Your task to perform on an android device: turn on improve location accuracy Image 0: 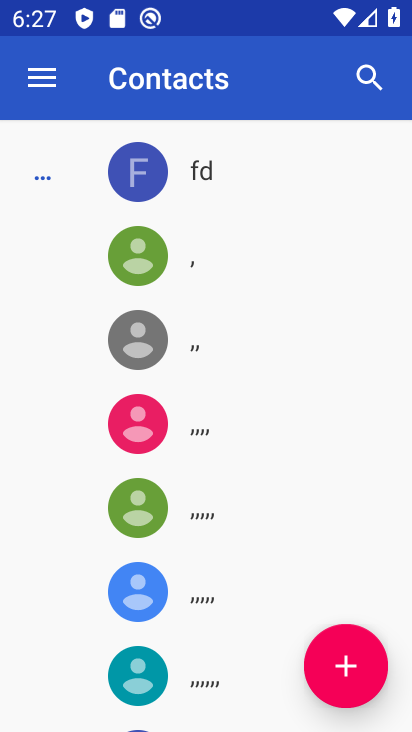
Step 0: press home button
Your task to perform on an android device: turn on improve location accuracy Image 1: 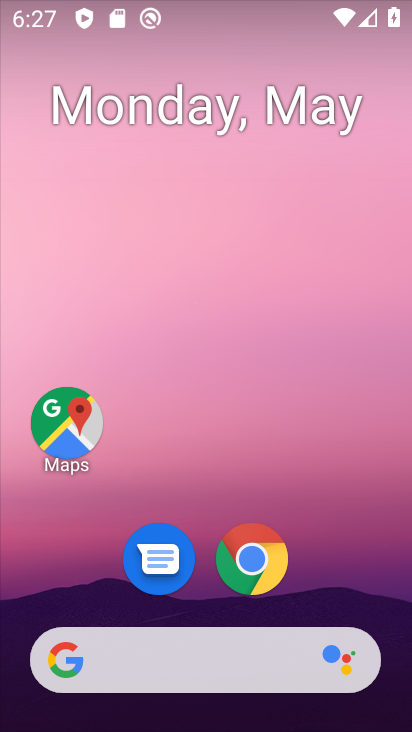
Step 1: drag from (393, 653) to (328, 131)
Your task to perform on an android device: turn on improve location accuracy Image 2: 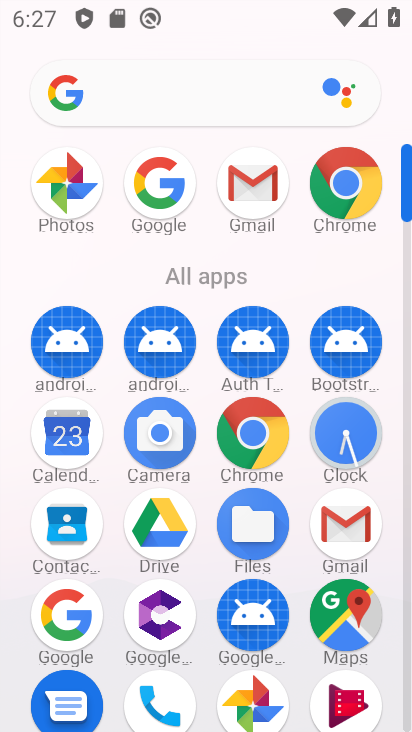
Step 2: drag from (205, 685) to (208, 144)
Your task to perform on an android device: turn on improve location accuracy Image 3: 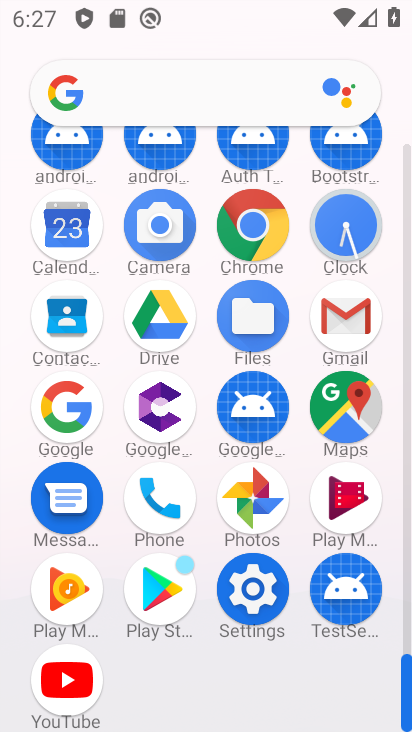
Step 3: click (258, 573)
Your task to perform on an android device: turn on improve location accuracy Image 4: 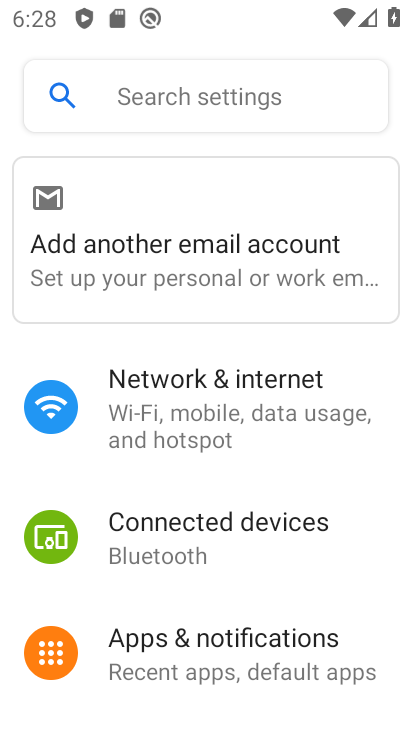
Step 4: click (292, 639)
Your task to perform on an android device: turn on improve location accuracy Image 5: 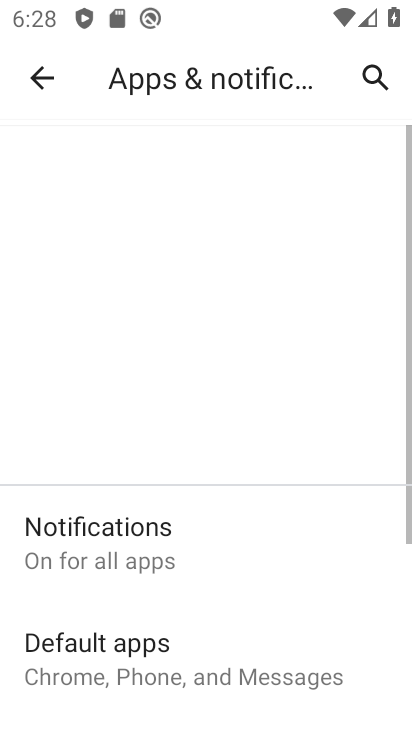
Step 5: press back button
Your task to perform on an android device: turn on improve location accuracy Image 6: 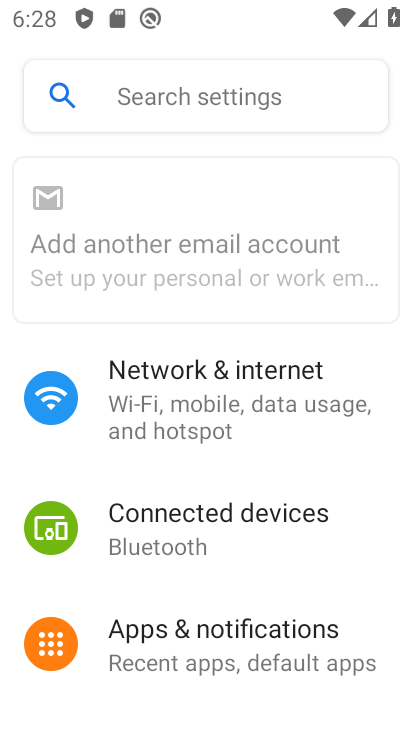
Step 6: drag from (256, 631) to (249, 100)
Your task to perform on an android device: turn on improve location accuracy Image 7: 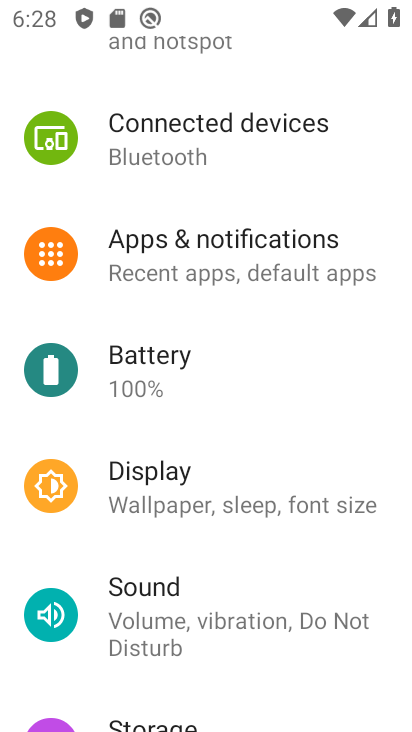
Step 7: drag from (190, 664) to (202, 222)
Your task to perform on an android device: turn on improve location accuracy Image 8: 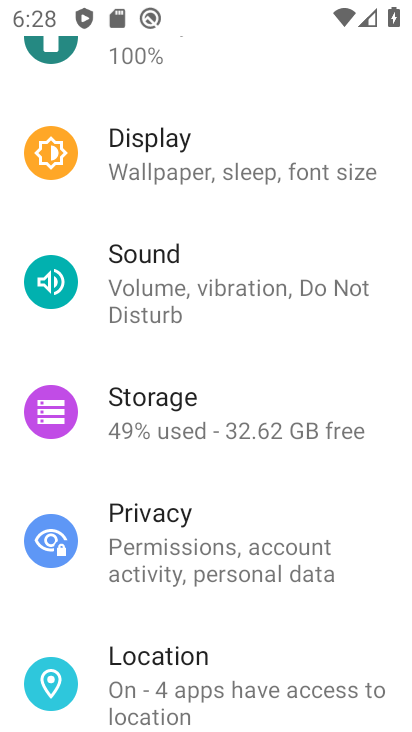
Step 8: click (189, 672)
Your task to perform on an android device: turn on improve location accuracy Image 9: 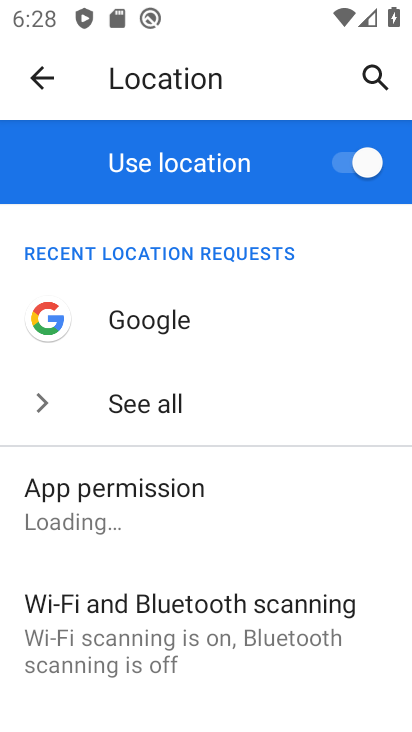
Step 9: drag from (189, 672) to (213, 228)
Your task to perform on an android device: turn on improve location accuracy Image 10: 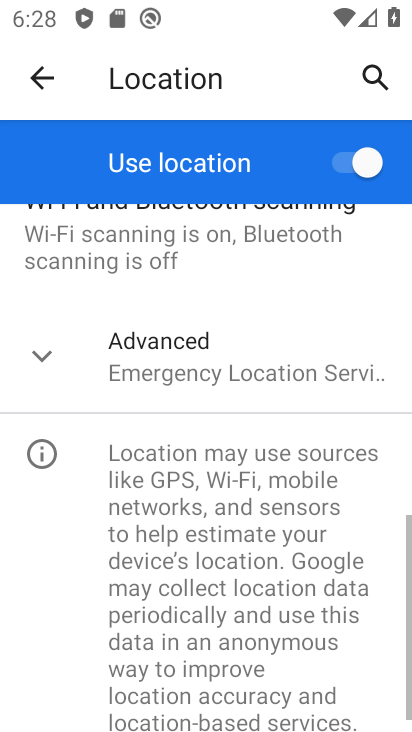
Step 10: click (183, 358)
Your task to perform on an android device: turn on improve location accuracy Image 11: 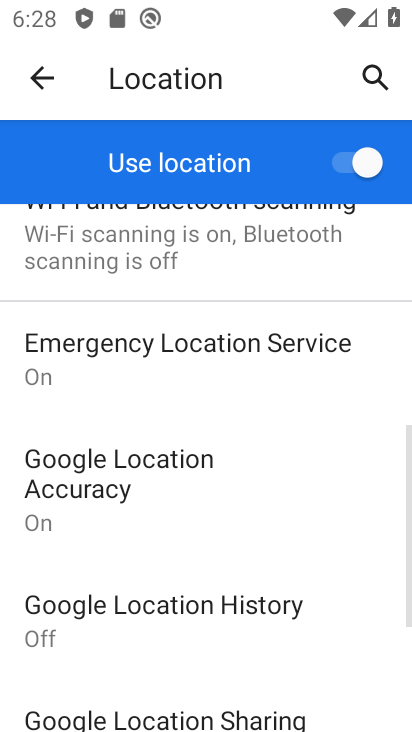
Step 11: click (210, 469)
Your task to perform on an android device: turn on improve location accuracy Image 12: 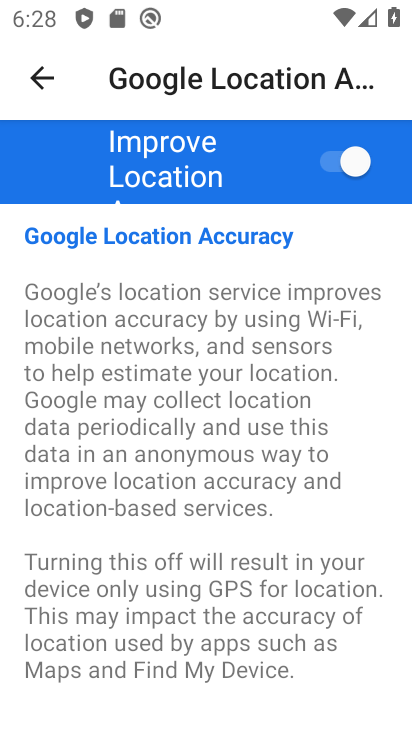
Step 12: task complete